Your task to perform on an android device: change the clock style Image 0: 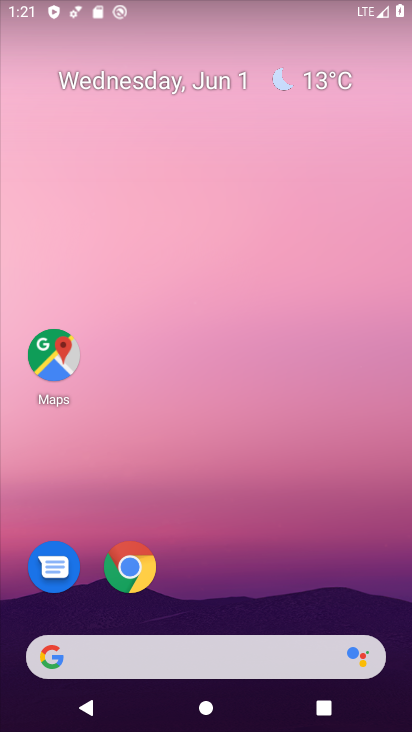
Step 0: drag from (316, 537) to (343, 156)
Your task to perform on an android device: change the clock style Image 1: 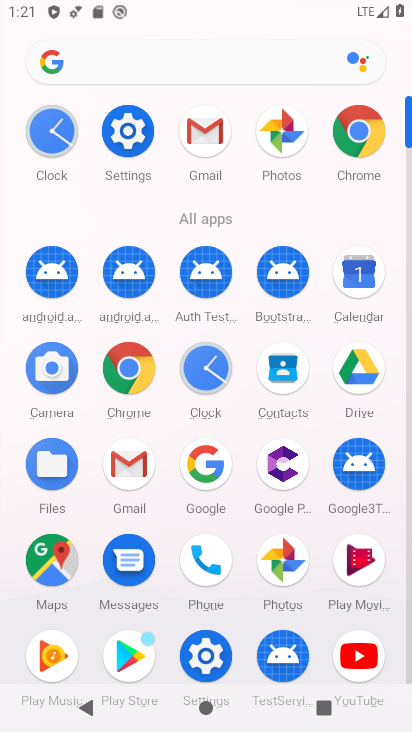
Step 1: click (199, 385)
Your task to perform on an android device: change the clock style Image 2: 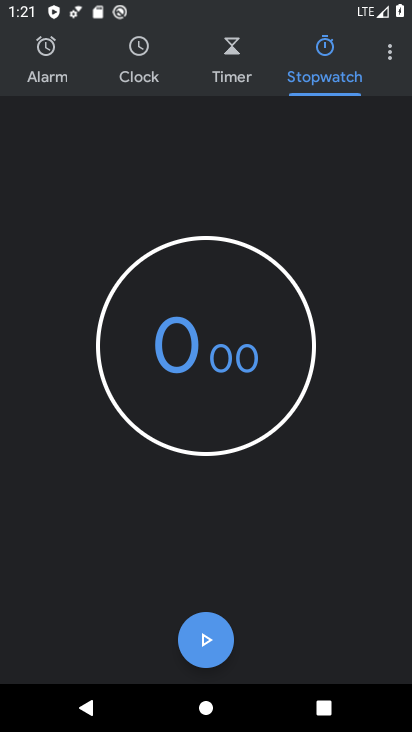
Step 2: click (382, 58)
Your task to perform on an android device: change the clock style Image 3: 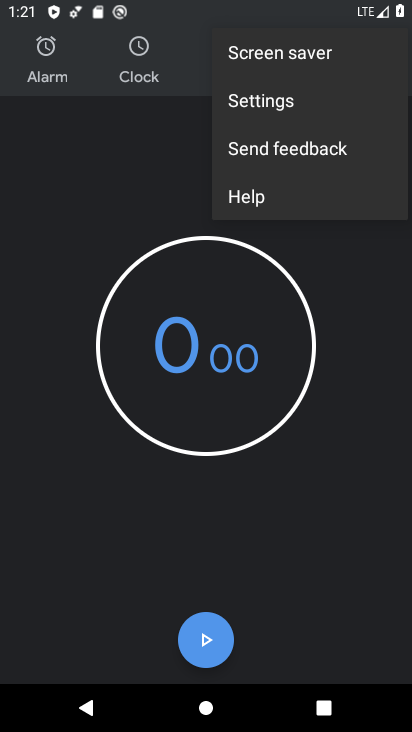
Step 3: click (299, 98)
Your task to perform on an android device: change the clock style Image 4: 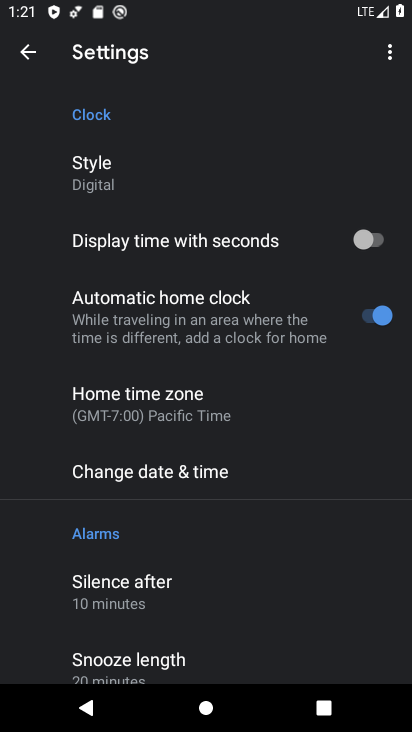
Step 4: click (191, 157)
Your task to perform on an android device: change the clock style Image 5: 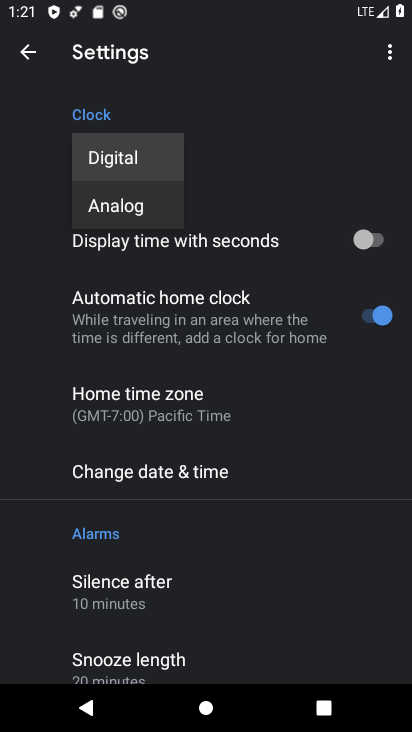
Step 5: click (139, 219)
Your task to perform on an android device: change the clock style Image 6: 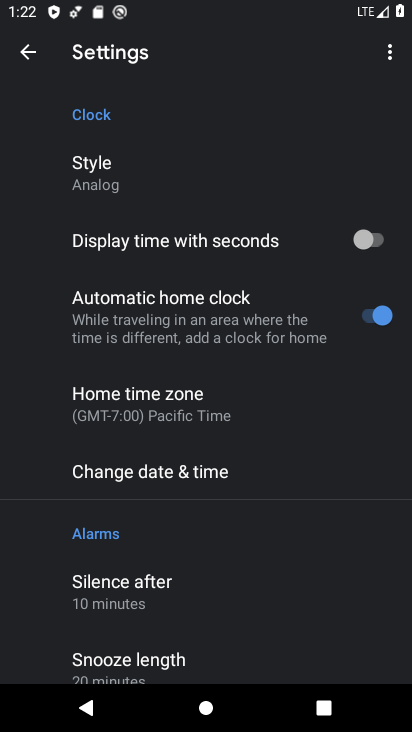
Step 6: task complete